Your task to perform on an android device: Go to sound settings Image 0: 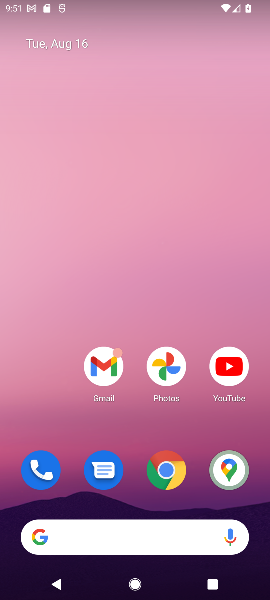
Step 0: drag from (68, 399) to (74, 17)
Your task to perform on an android device: Go to sound settings Image 1: 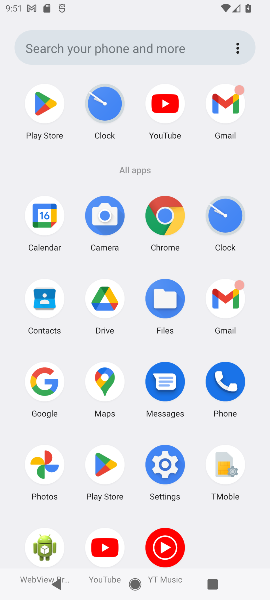
Step 1: click (161, 469)
Your task to perform on an android device: Go to sound settings Image 2: 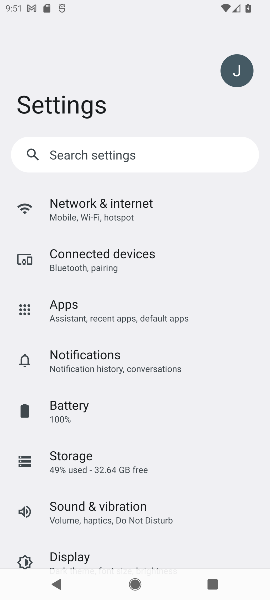
Step 2: drag from (184, 404) to (175, 163)
Your task to perform on an android device: Go to sound settings Image 3: 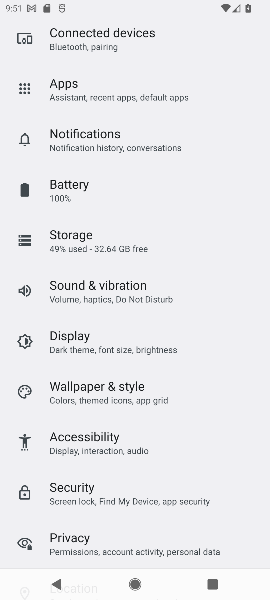
Step 3: drag from (173, 406) to (169, 271)
Your task to perform on an android device: Go to sound settings Image 4: 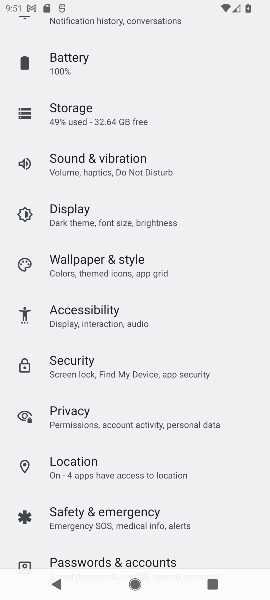
Step 4: drag from (123, 87) to (123, 116)
Your task to perform on an android device: Go to sound settings Image 5: 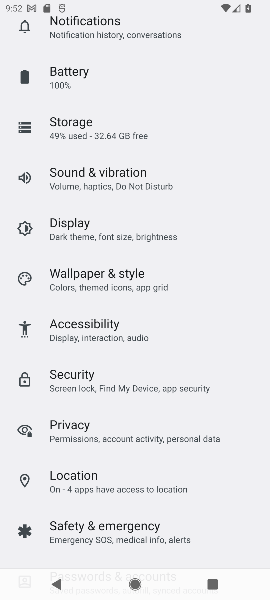
Step 5: click (122, 163)
Your task to perform on an android device: Go to sound settings Image 6: 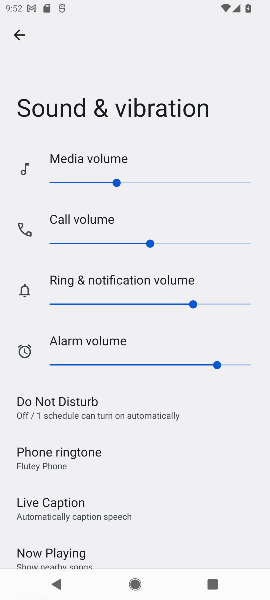
Step 6: task complete